Your task to perform on an android device: Go to Android settings Image 0: 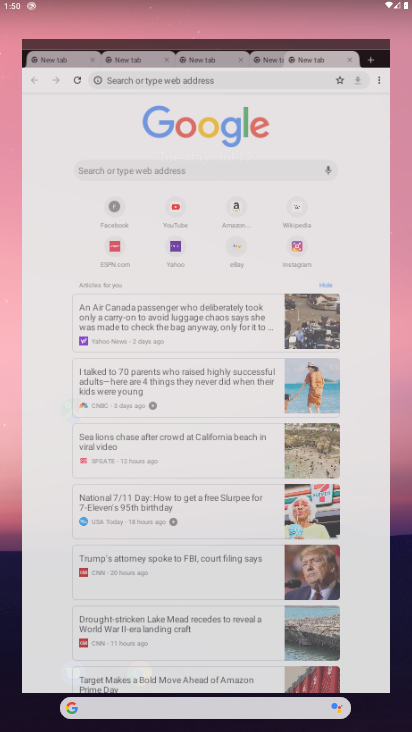
Step 0: drag from (198, 696) to (168, 439)
Your task to perform on an android device: Go to Android settings Image 1: 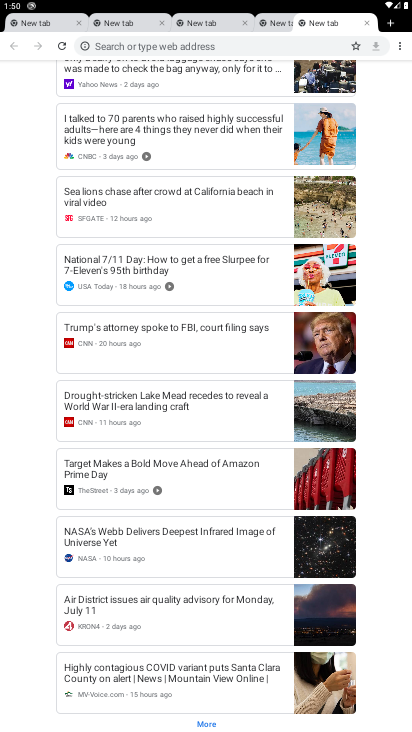
Step 1: press home button
Your task to perform on an android device: Go to Android settings Image 2: 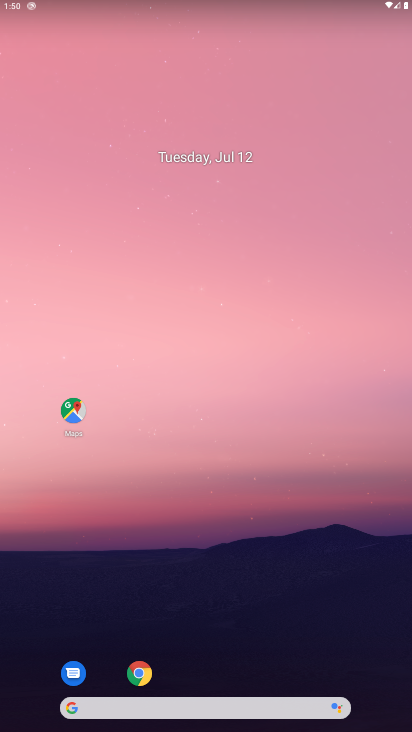
Step 2: drag from (299, 694) to (276, 480)
Your task to perform on an android device: Go to Android settings Image 3: 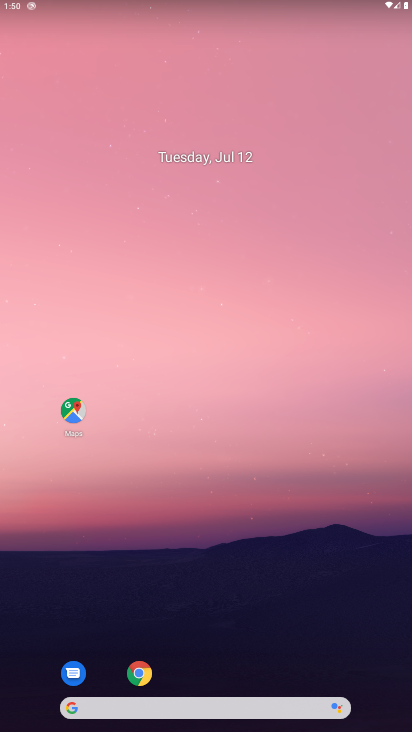
Step 3: drag from (241, 689) to (187, 193)
Your task to perform on an android device: Go to Android settings Image 4: 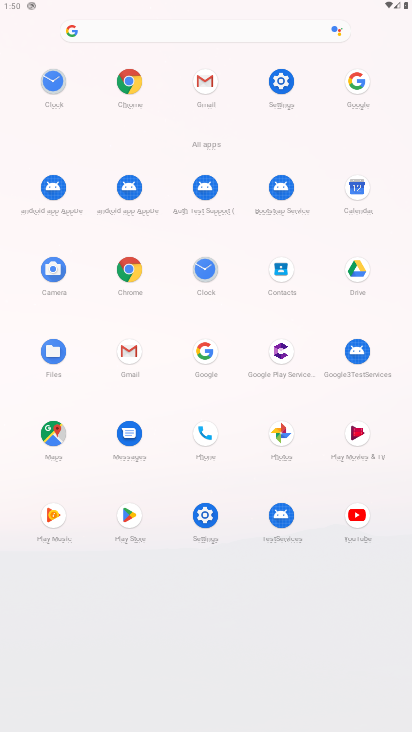
Step 4: click (278, 80)
Your task to perform on an android device: Go to Android settings Image 5: 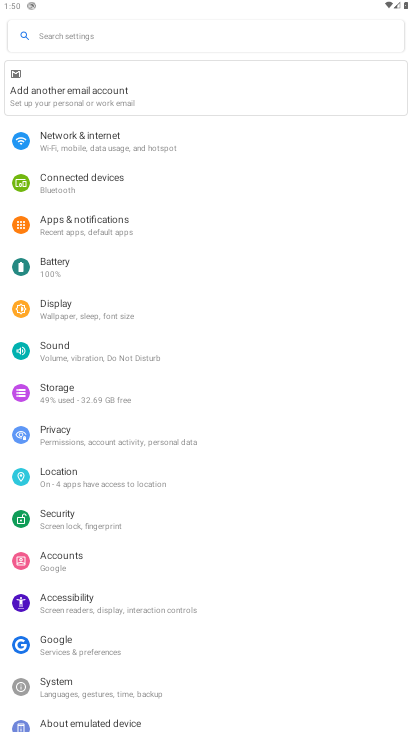
Step 5: task complete